Your task to perform on an android device: set the stopwatch Image 0: 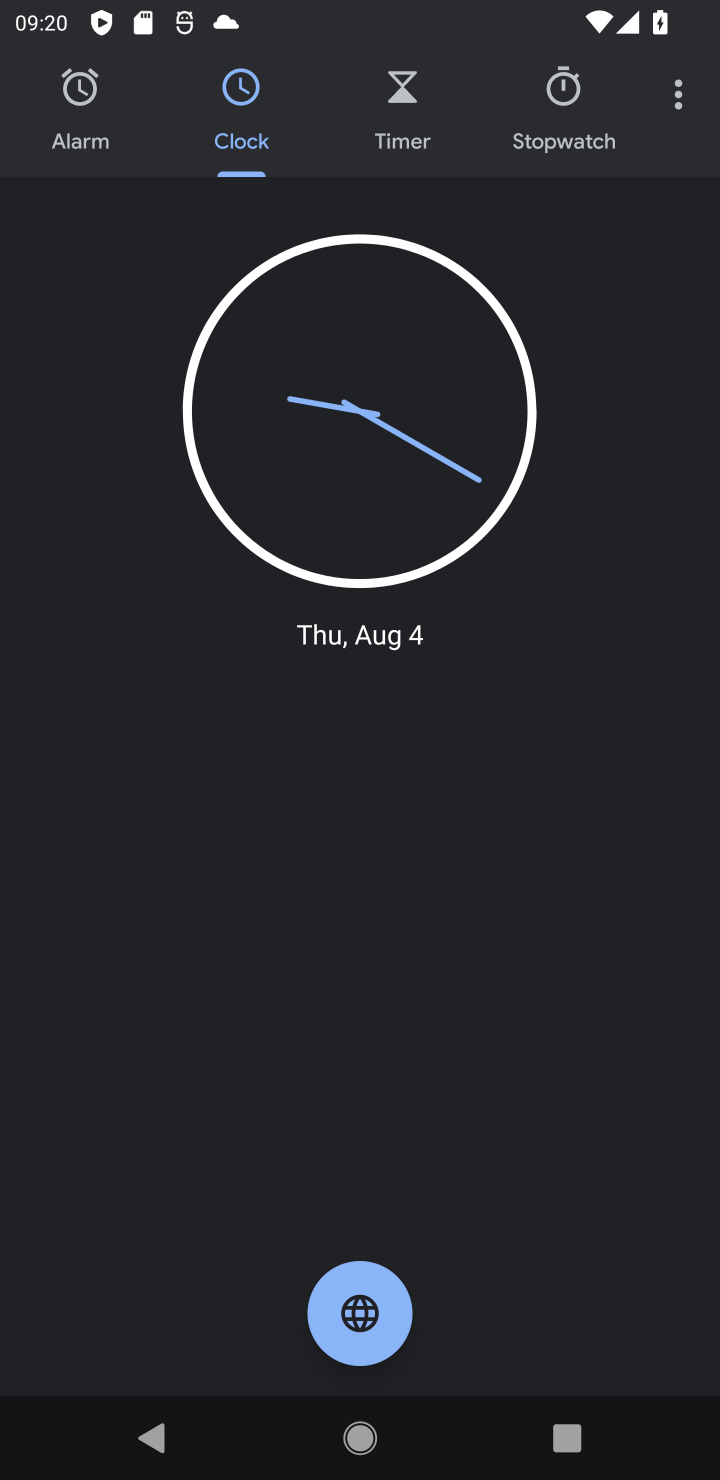
Step 0: click (577, 88)
Your task to perform on an android device: set the stopwatch Image 1: 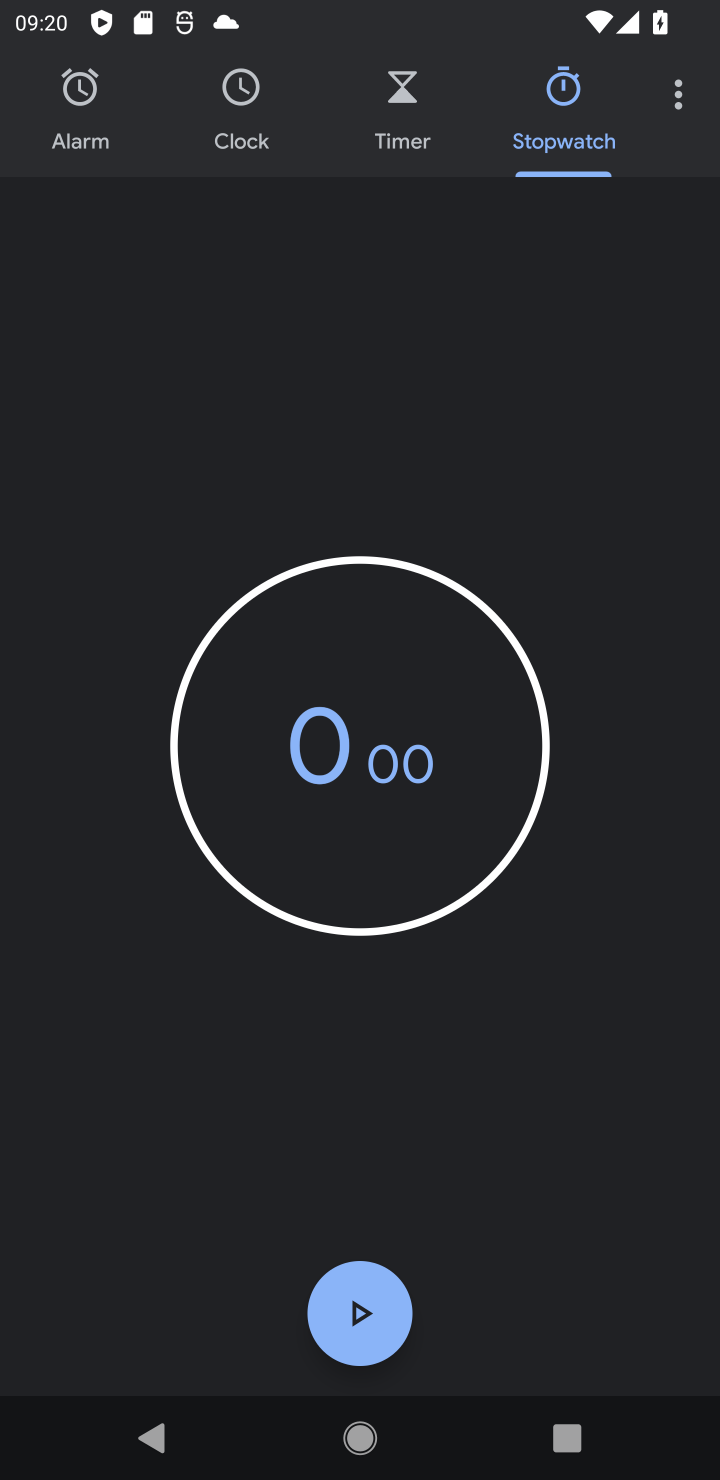
Step 1: task complete